Your task to perform on an android device: Add "macbook pro 13 inch" to the cart on walmart.com, then select checkout. Image 0: 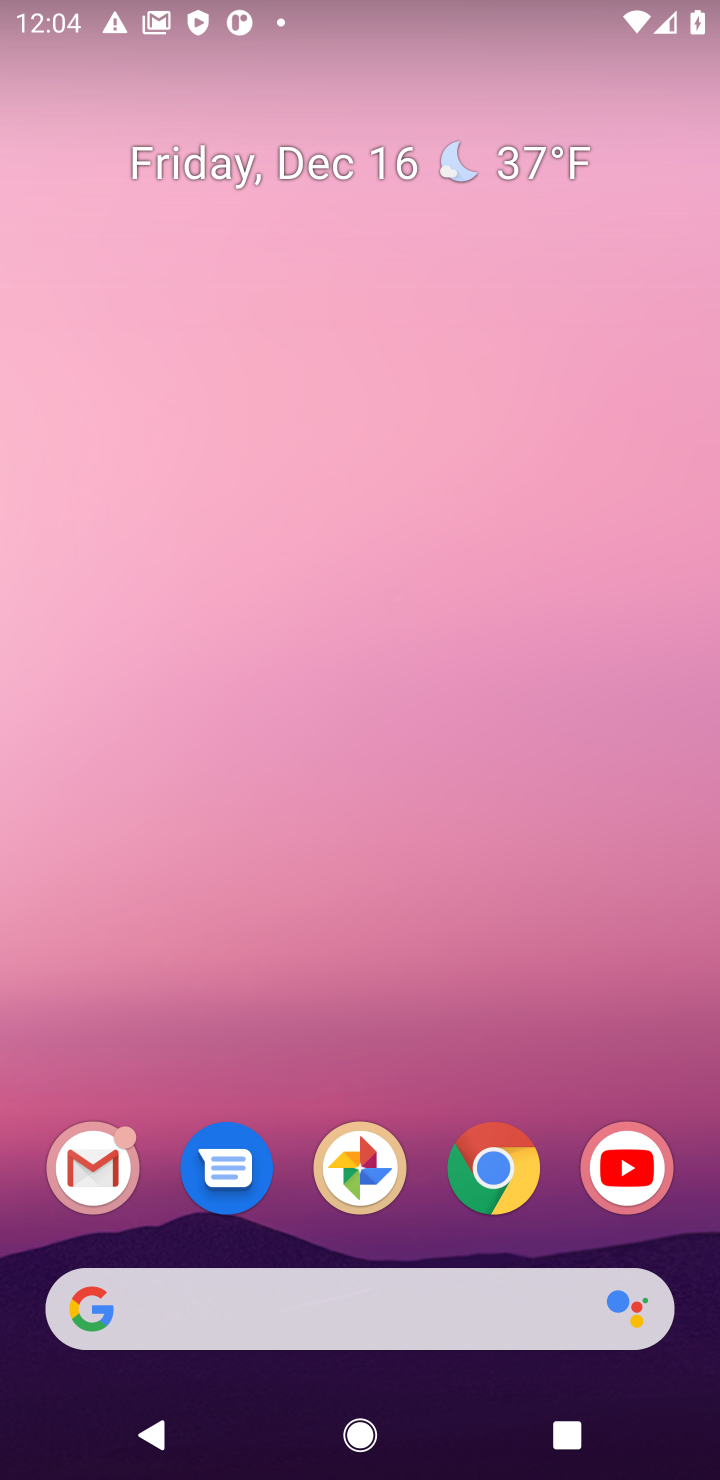
Step 0: task complete